Your task to perform on an android device: check data usage Image 0: 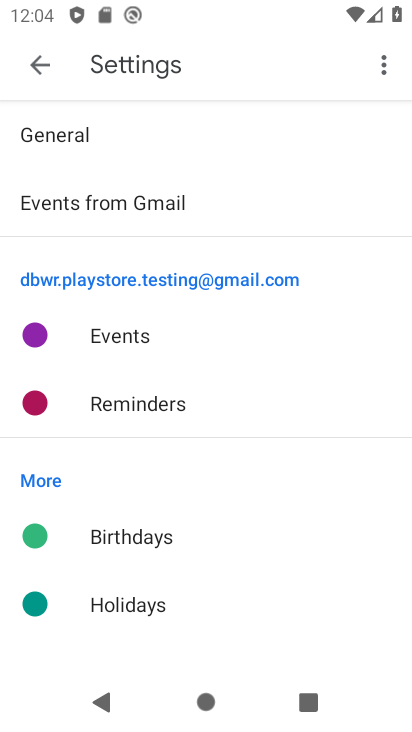
Step 0: press home button
Your task to perform on an android device: check data usage Image 1: 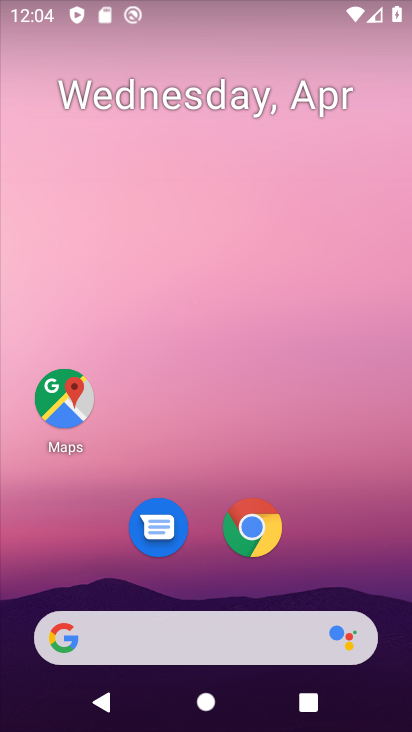
Step 1: drag from (375, 587) to (333, 14)
Your task to perform on an android device: check data usage Image 2: 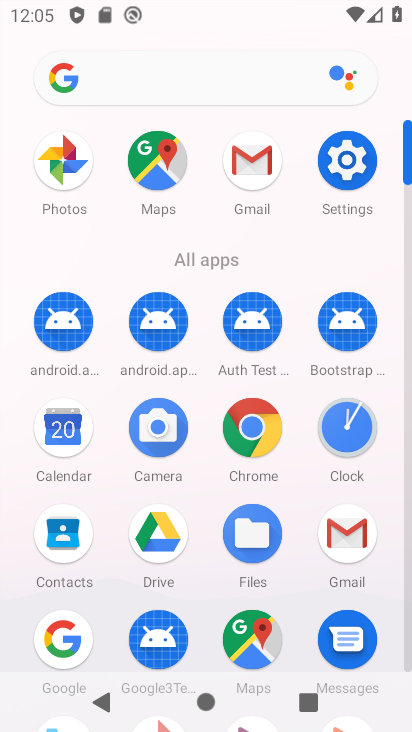
Step 2: click (351, 164)
Your task to perform on an android device: check data usage Image 3: 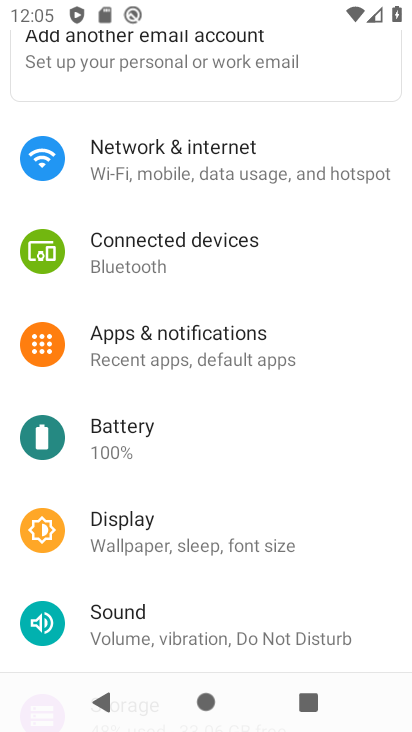
Step 3: click (180, 174)
Your task to perform on an android device: check data usage Image 4: 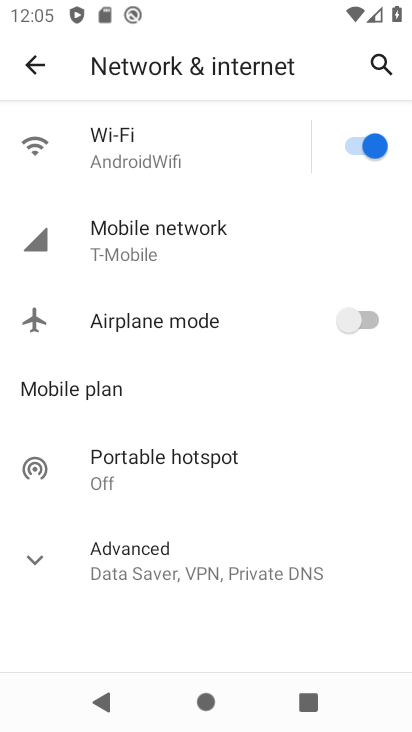
Step 4: click (140, 252)
Your task to perform on an android device: check data usage Image 5: 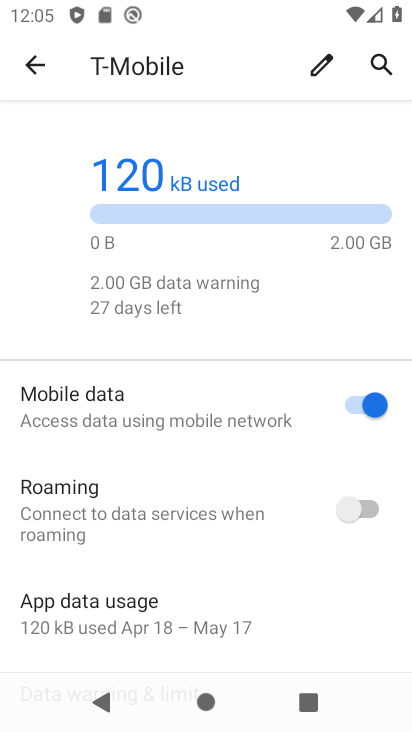
Step 5: click (118, 616)
Your task to perform on an android device: check data usage Image 6: 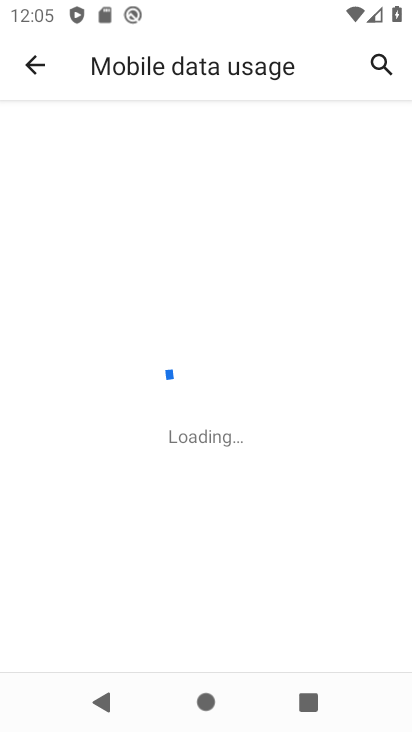
Step 6: task complete